Your task to perform on an android device: Go to Maps Image 0: 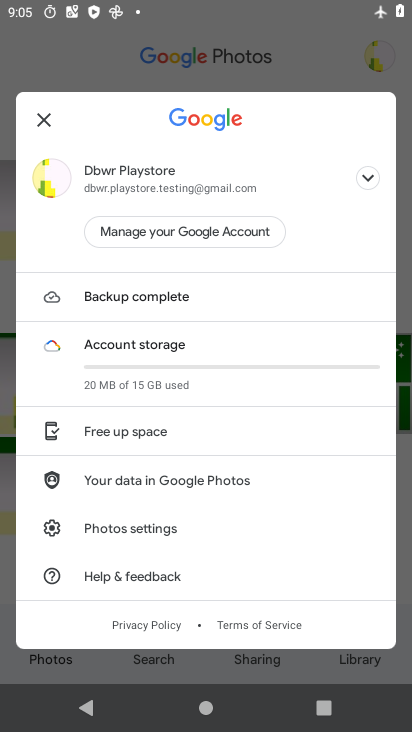
Step 0: press home button
Your task to perform on an android device: Go to Maps Image 1: 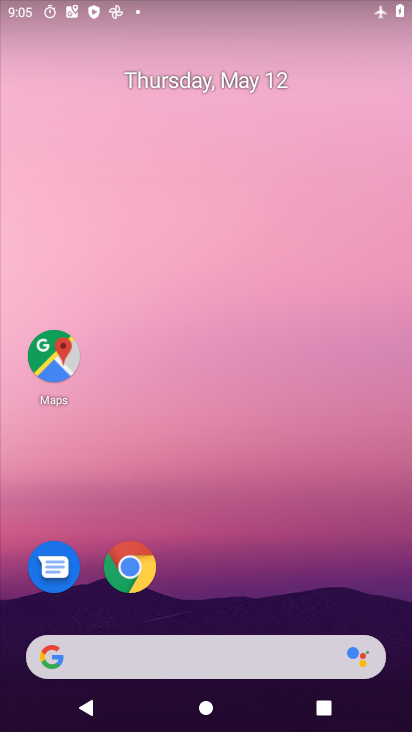
Step 1: drag from (265, 632) to (328, 193)
Your task to perform on an android device: Go to Maps Image 2: 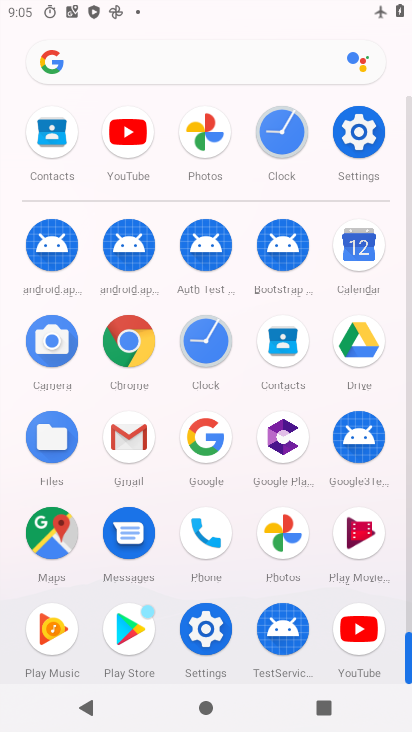
Step 2: click (71, 544)
Your task to perform on an android device: Go to Maps Image 3: 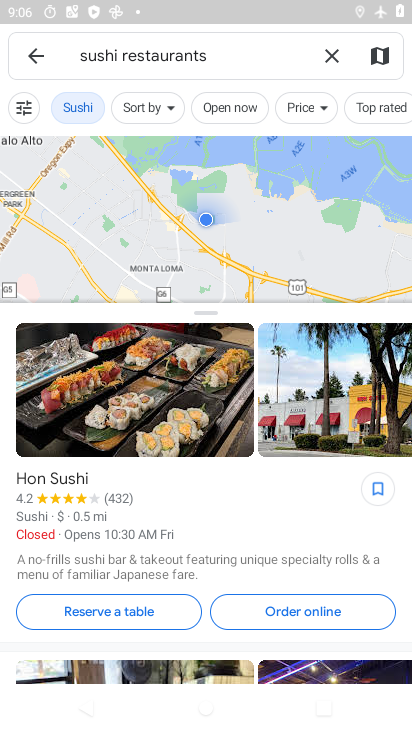
Step 3: task complete